Your task to perform on an android device: Search for seafood restaurants on Google Maps Image 0: 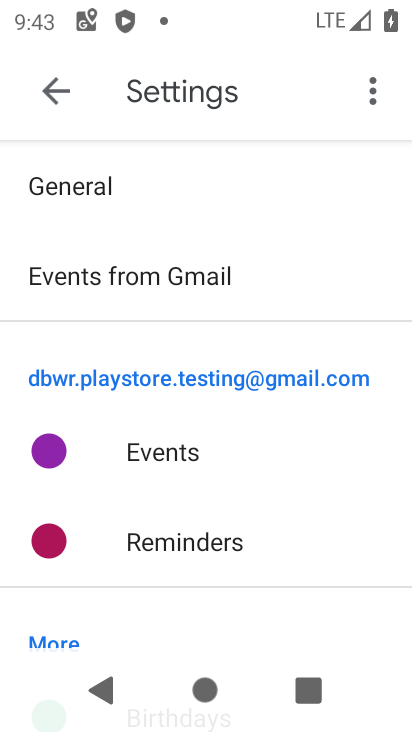
Step 0: press home button
Your task to perform on an android device: Search for seafood restaurants on Google Maps Image 1: 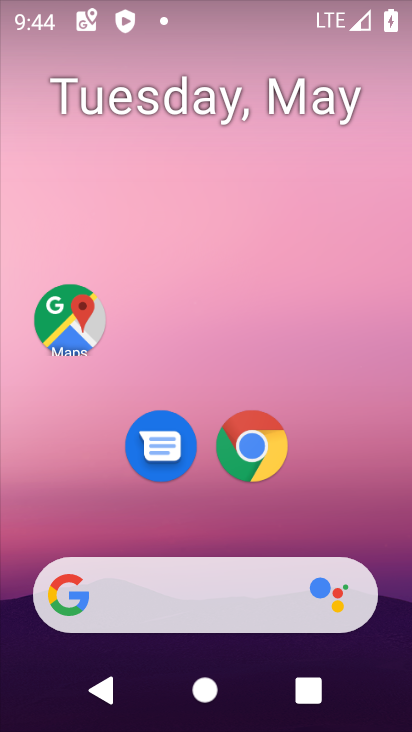
Step 1: click (62, 332)
Your task to perform on an android device: Search for seafood restaurants on Google Maps Image 2: 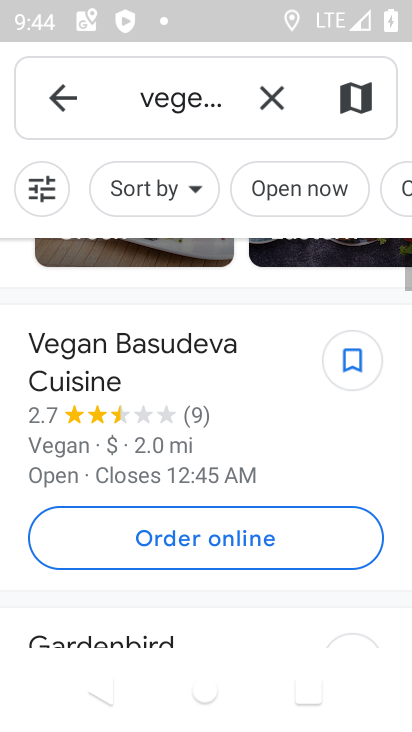
Step 2: click (185, 107)
Your task to perform on an android device: Search for seafood restaurants on Google Maps Image 3: 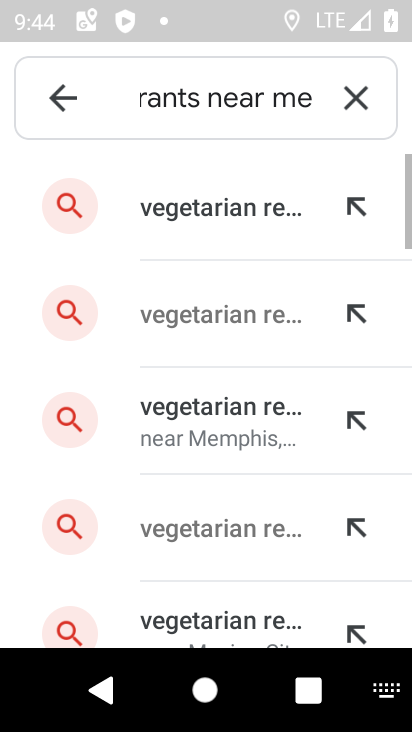
Step 3: click (365, 104)
Your task to perform on an android device: Search for seafood restaurants on Google Maps Image 4: 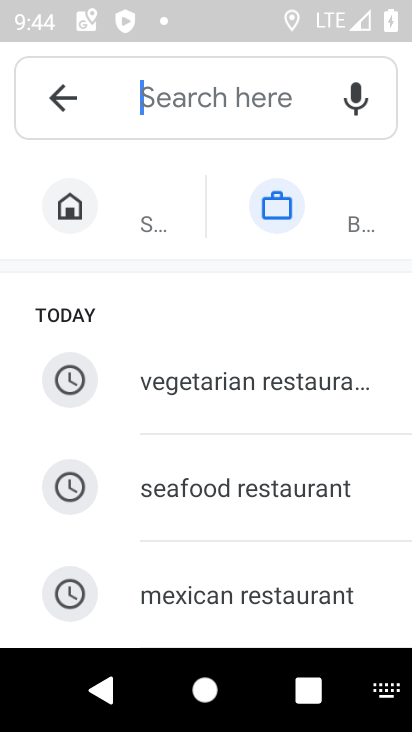
Step 4: click (271, 496)
Your task to perform on an android device: Search for seafood restaurants on Google Maps Image 5: 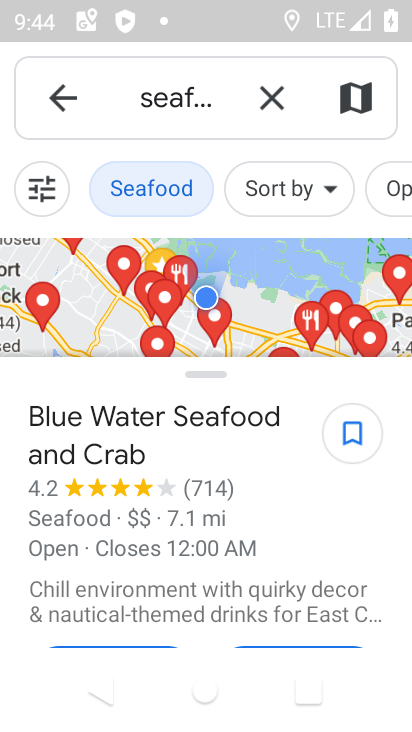
Step 5: task complete